Your task to perform on an android device: stop showing notifications on the lock screen Image 0: 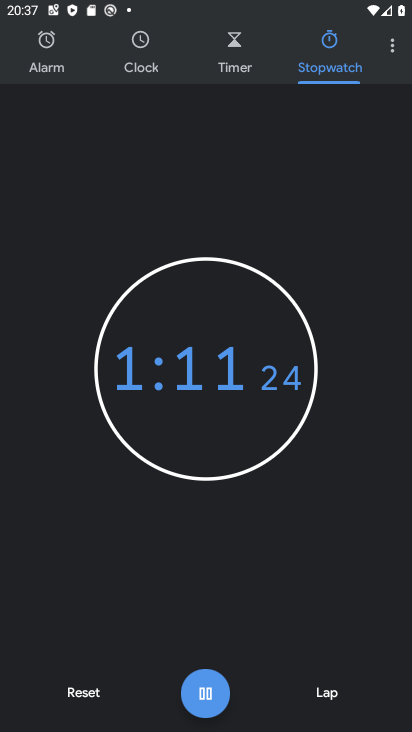
Step 0: click (70, 695)
Your task to perform on an android device: stop showing notifications on the lock screen Image 1: 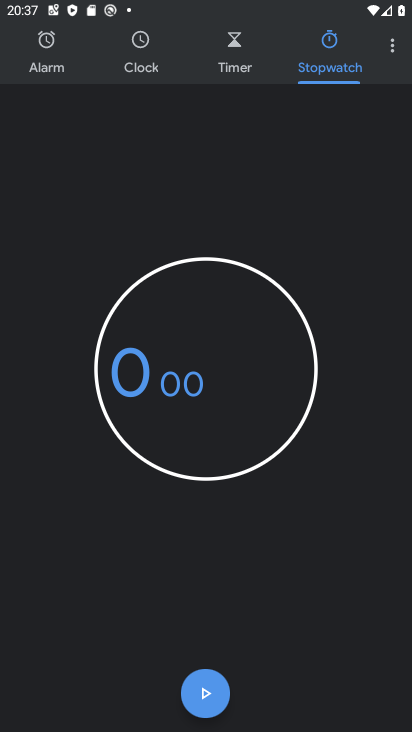
Step 1: press home button
Your task to perform on an android device: stop showing notifications on the lock screen Image 2: 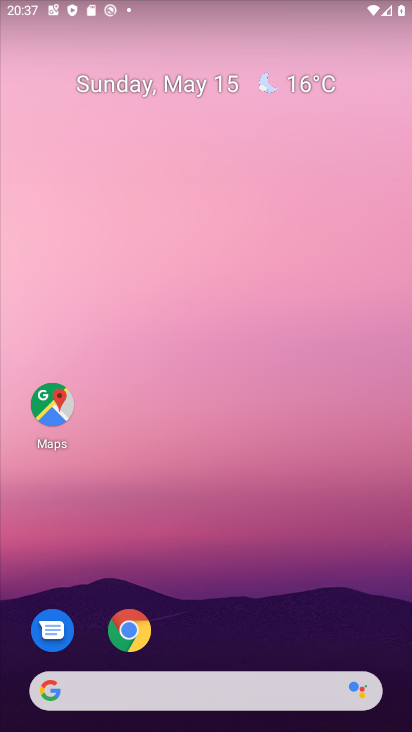
Step 2: drag from (236, 607) to (312, 13)
Your task to perform on an android device: stop showing notifications on the lock screen Image 3: 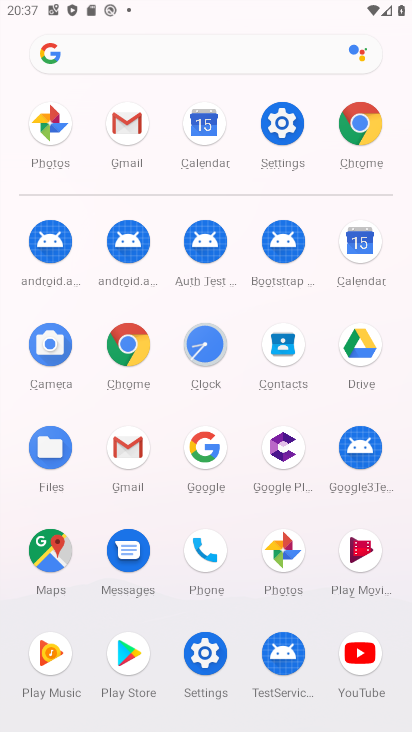
Step 3: click (206, 651)
Your task to perform on an android device: stop showing notifications on the lock screen Image 4: 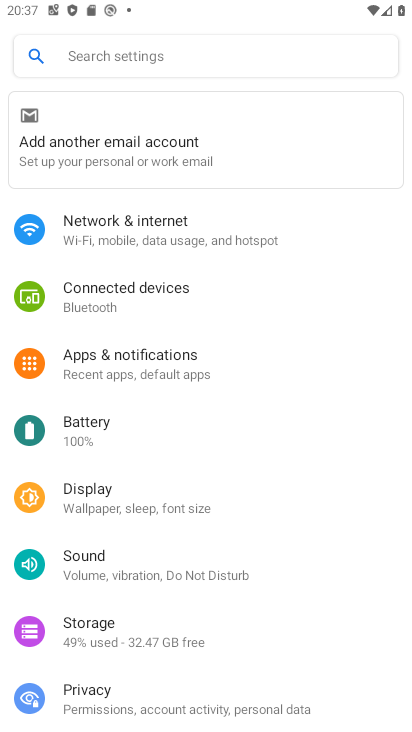
Step 4: click (145, 377)
Your task to perform on an android device: stop showing notifications on the lock screen Image 5: 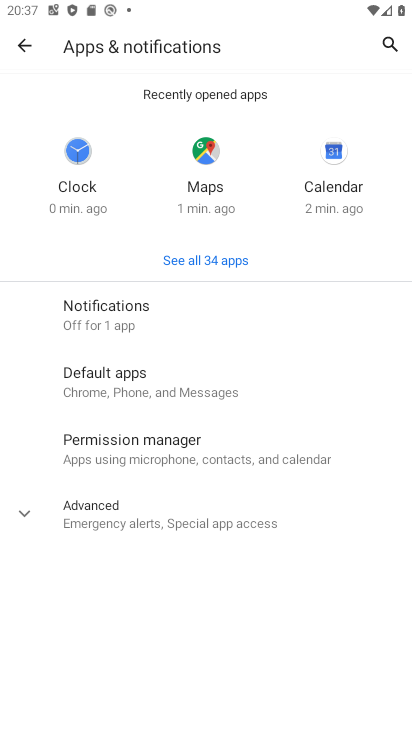
Step 5: click (113, 328)
Your task to perform on an android device: stop showing notifications on the lock screen Image 6: 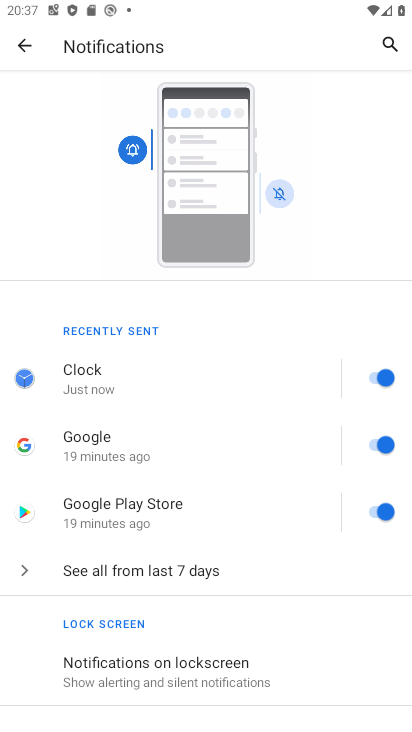
Step 6: click (154, 672)
Your task to perform on an android device: stop showing notifications on the lock screen Image 7: 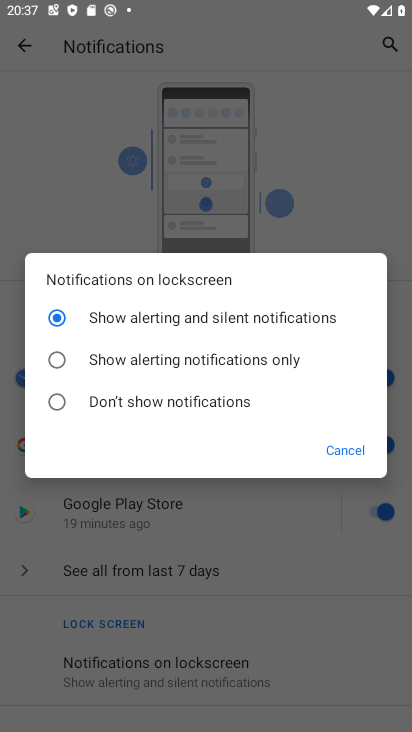
Step 7: click (78, 402)
Your task to perform on an android device: stop showing notifications on the lock screen Image 8: 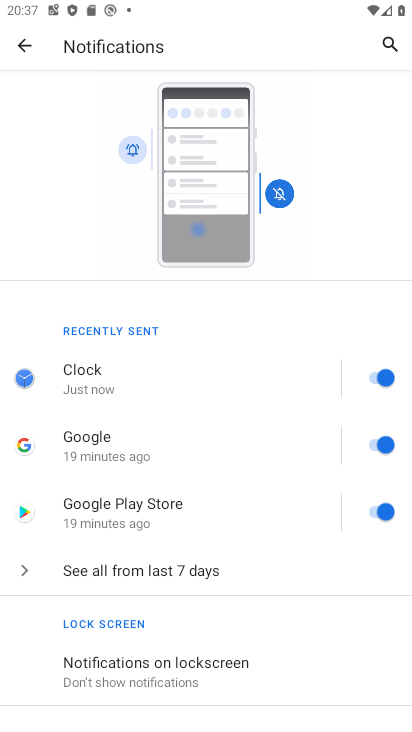
Step 8: task complete